Your task to perform on an android device: Open Youtube and go to the subscriptions tab Image 0: 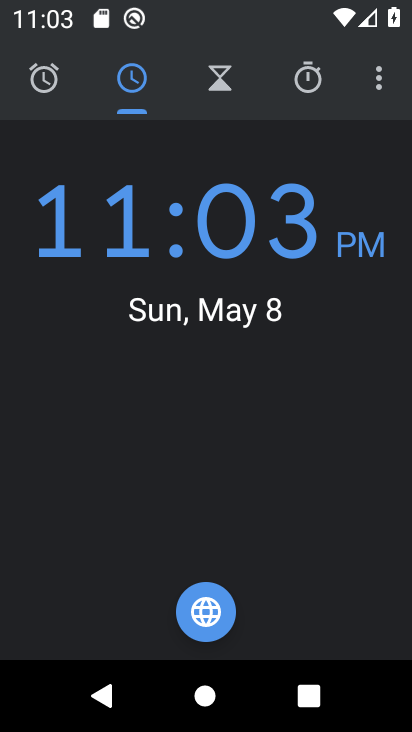
Step 0: press home button
Your task to perform on an android device: Open Youtube and go to the subscriptions tab Image 1: 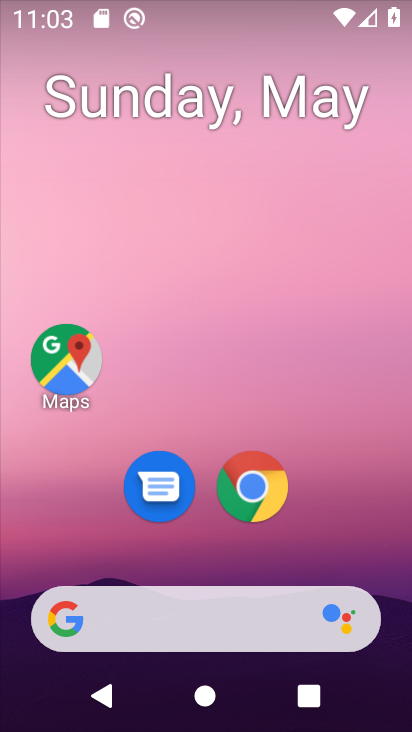
Step 1: drag from (257, 429) to (263, 174)
Your task to perform on an android device: Open Youtube and go to the subscriptions tab Image 2: 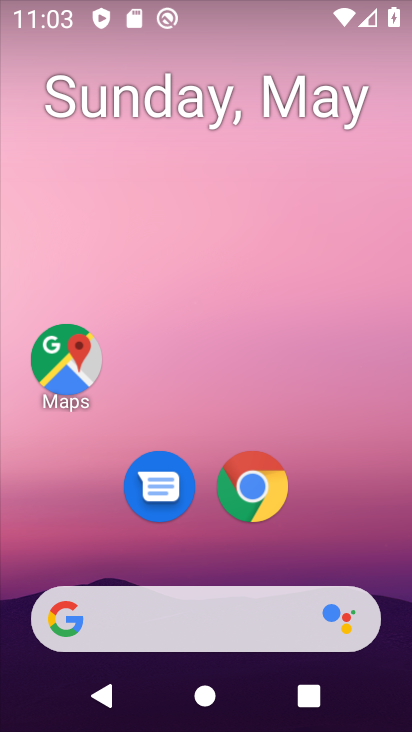
Step 2: drag from (280, 441) to (298, 73)
Your task to perform on an android device: Open Youtube and go to the subscriptions tab Image 3: 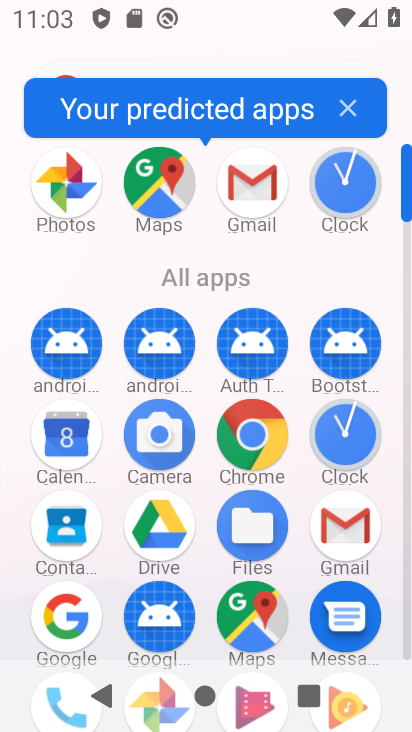
Step 3: drag from (295, 613) to (321, 216)
Your task to perform on an android device: Open Youtube and go to the subscriptions tab Image 4: 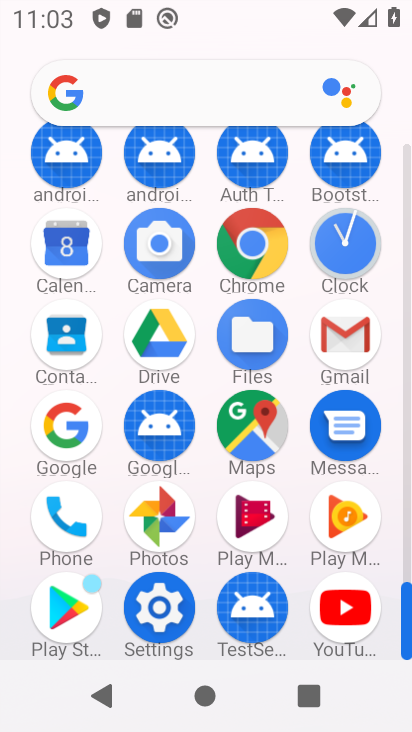
Step 4: click (339, 602)
Your task to perform on an android device: Open Youtube and go to the subscriptions tab Image 5: 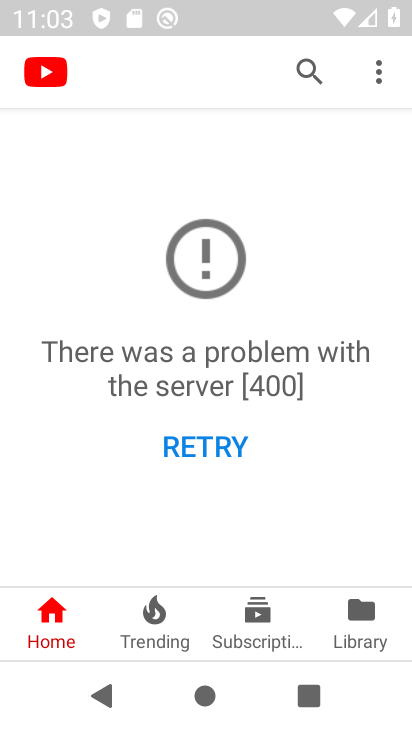
Step 5: click (253, 634)
Your task to perform on an android device: Open Youtube and go to the subscriptions tab Image 6: 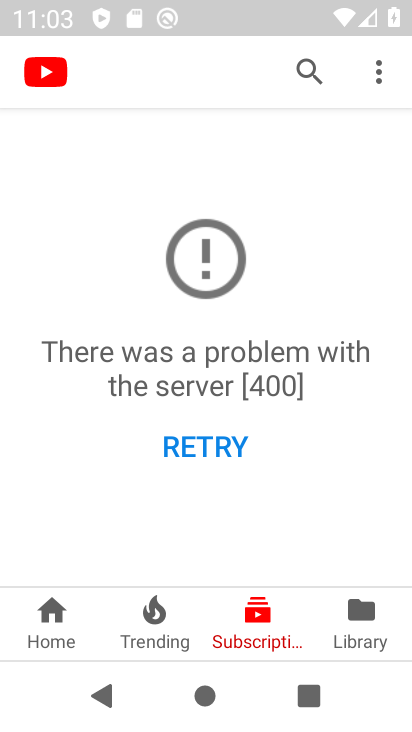
Step 6: task complete